Your task to perform on an android device: Go to sound settings Image 0: 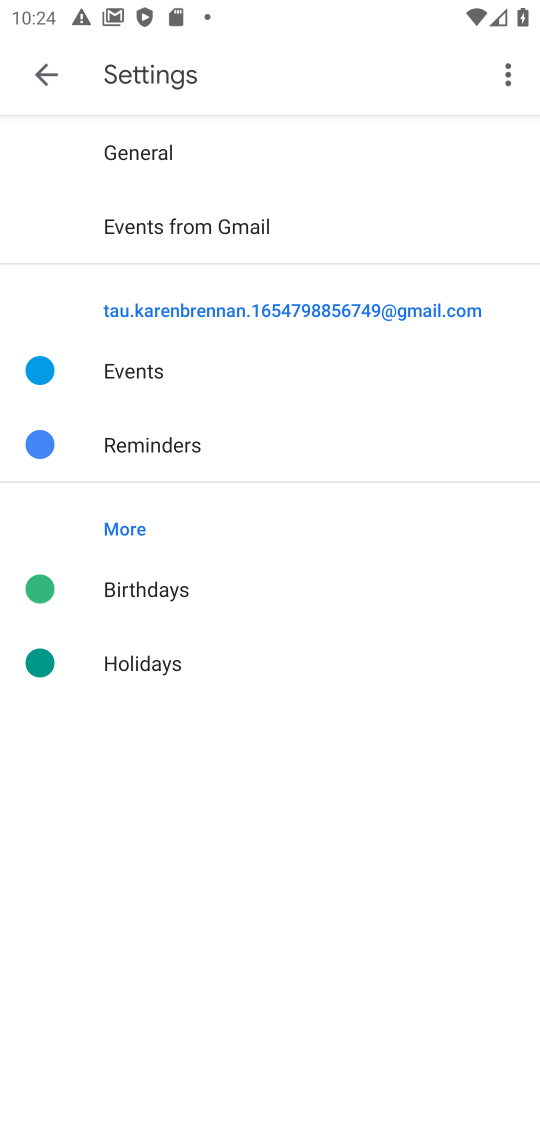
Step 0: press home button
Your task to perform on an android device: Go to sound settings Image 1: 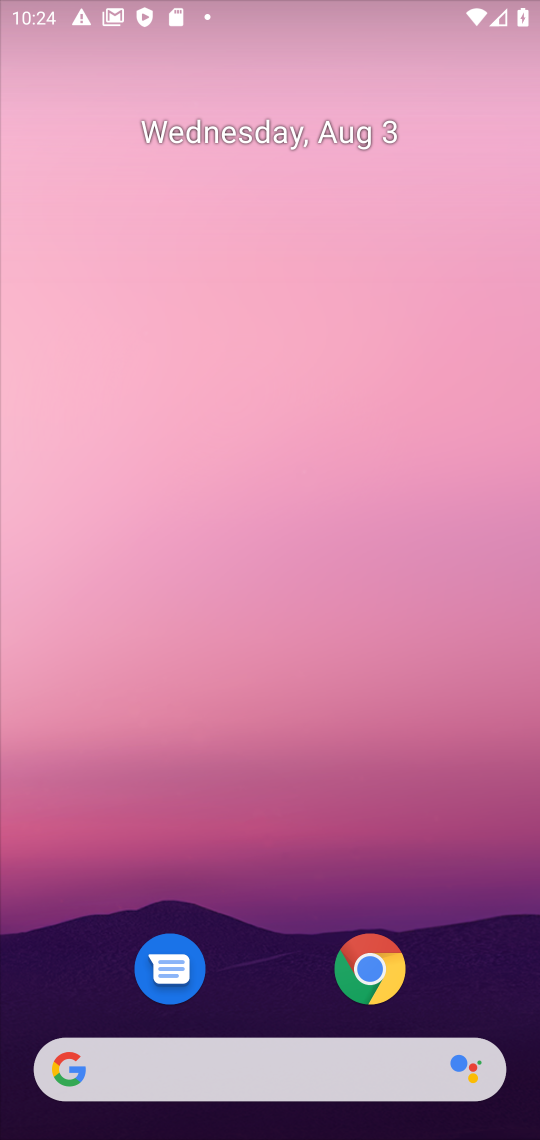
Step 1: drag from (296, 1016) to (305, 9)
Your task to perform on an android device: Go to sound settings Image 2: 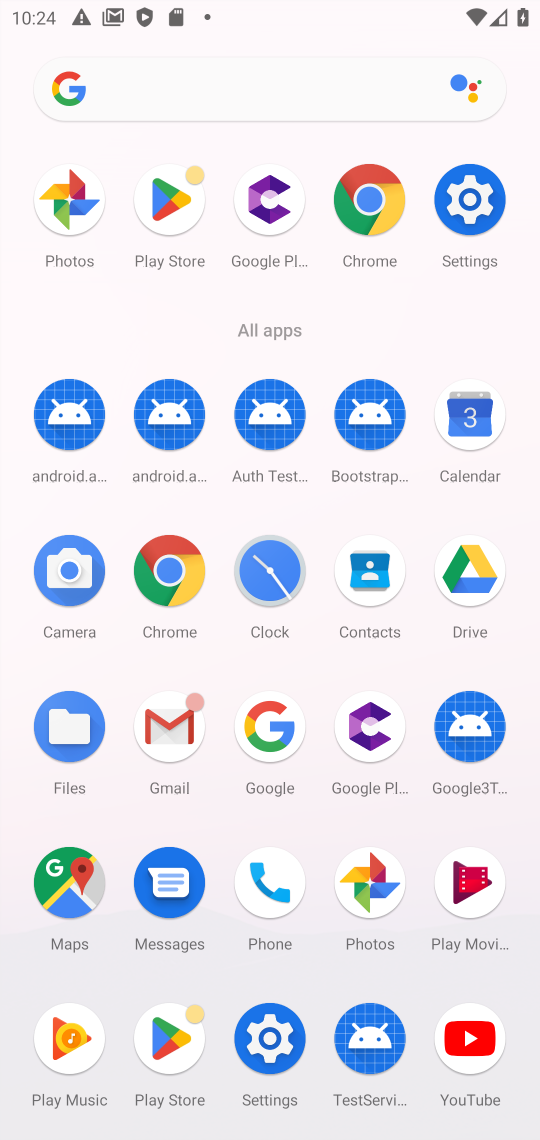
Step 2: click (476, 208)
Your task to perform on an android device: Go to sound settings Image 3: 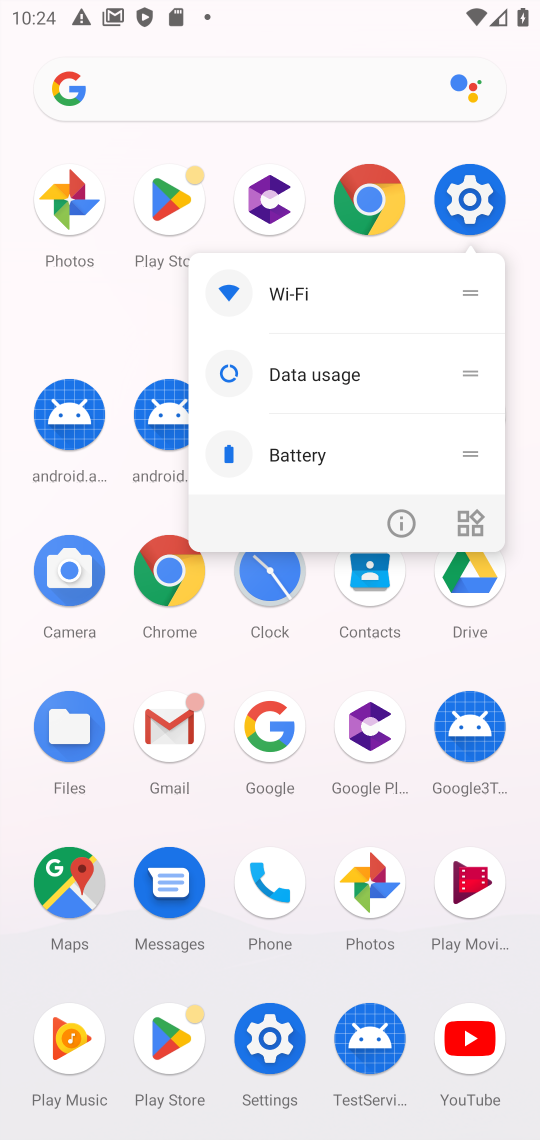
Step 3: click (247, 1067)
Your task to perform on an android device: Go to sound settings Image 4: 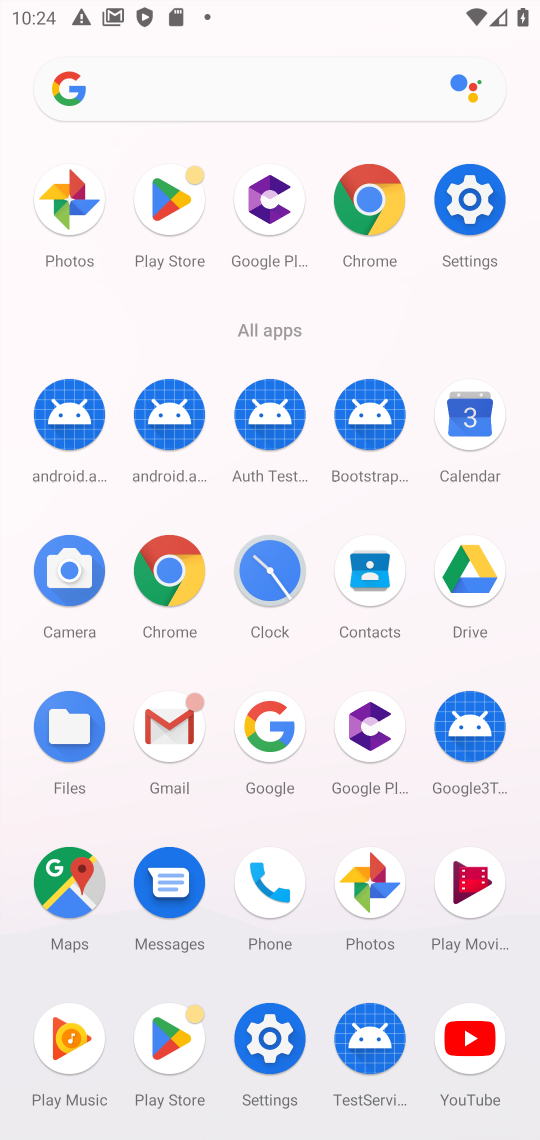
Step 4: click (243, 1044)
Your task to perform on an android device: Go to sound settings Image 5: 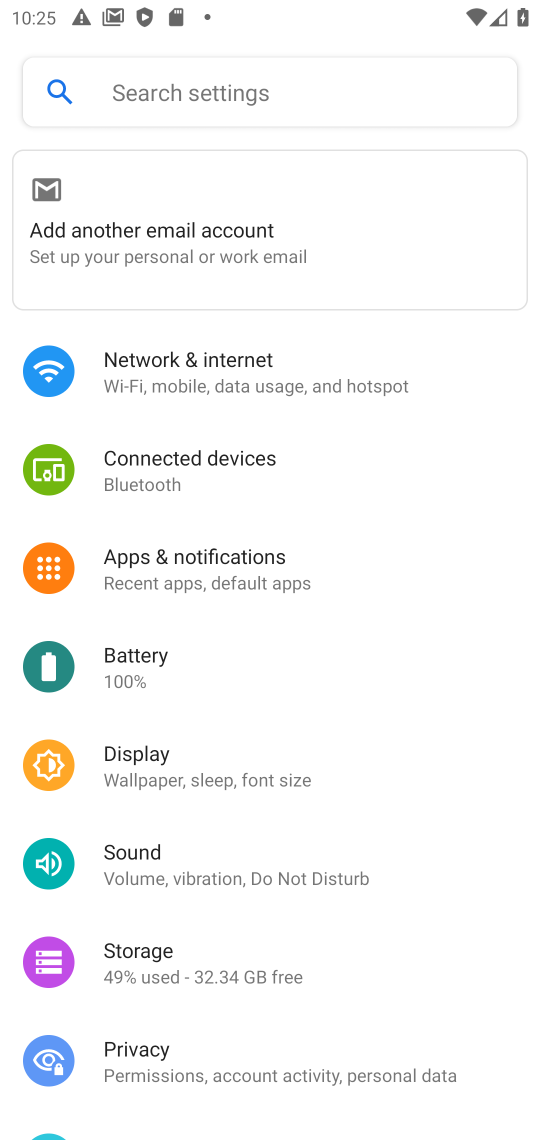
Step 5: click (101, 853)
Your task to perform on an android device: Go to sound settings Image 6: 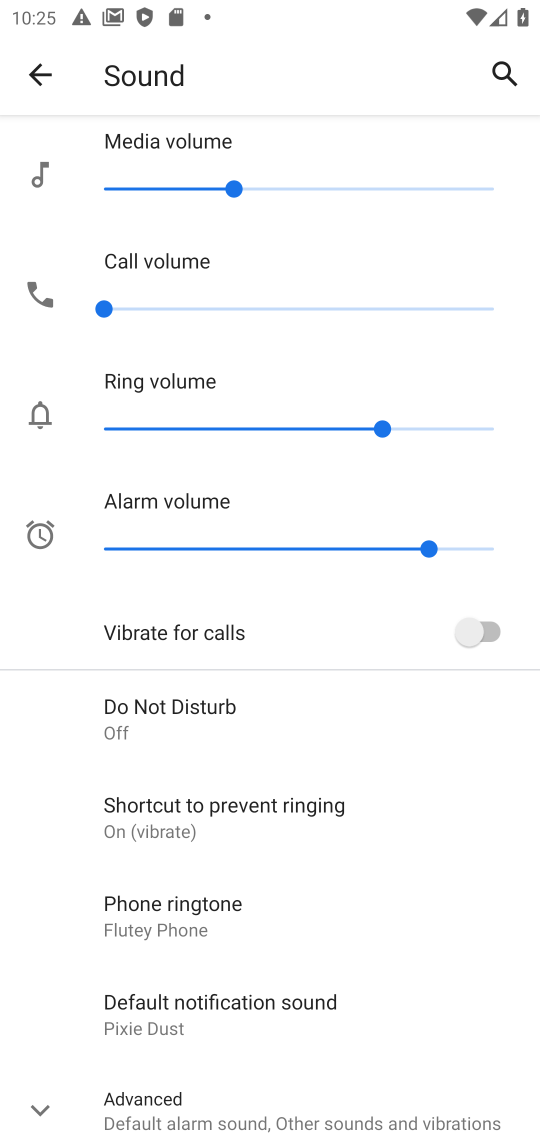
Step 6: task complete